Your task to perform on an android device: check data usage Image 0: 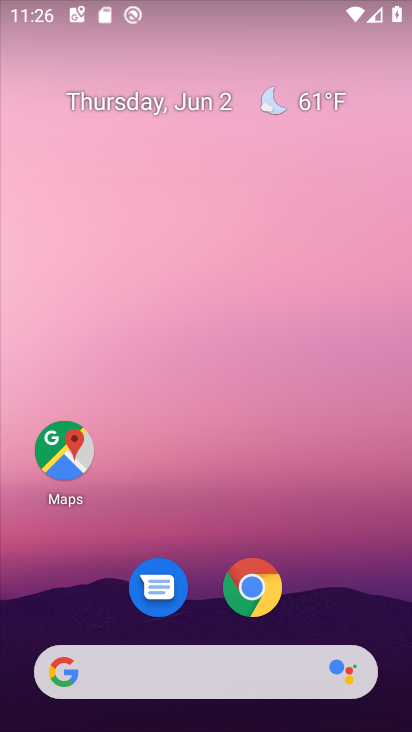
Step 0: drag from (223, 508) to (205, 0)
Your task to perform on an android device: check data usage Image 1: 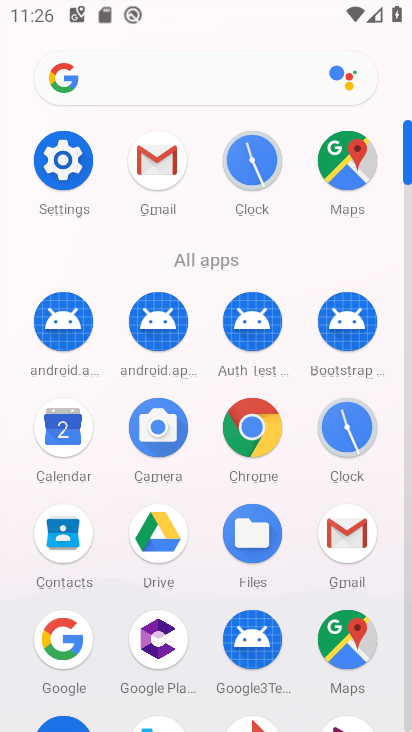
Step 1: click (63, 164)
Your task to perform on an android device: check data usage Image 2: 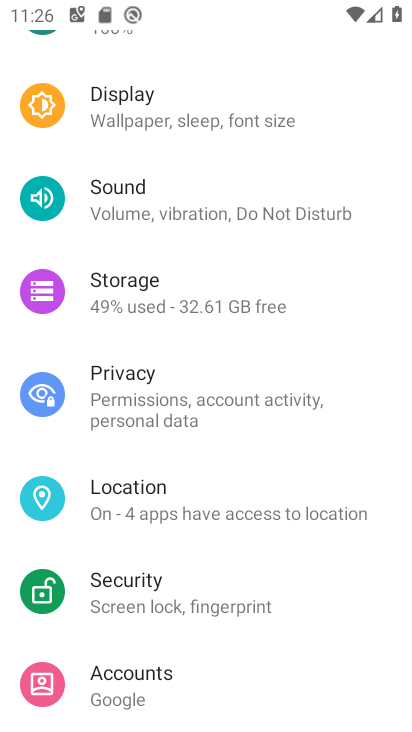
Step 2: drag from (182, 148) to (277, 708)
Your task to perform on an android device: check data usage Image 3: 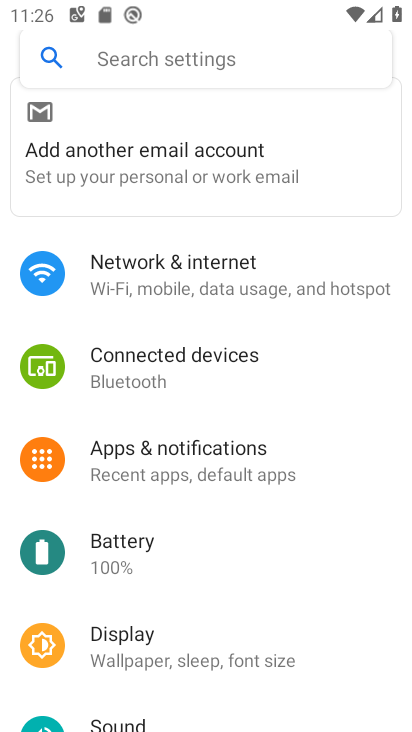
Step 3: click (234, 312)
Your task to perform on an android device: check data usage Image 4: 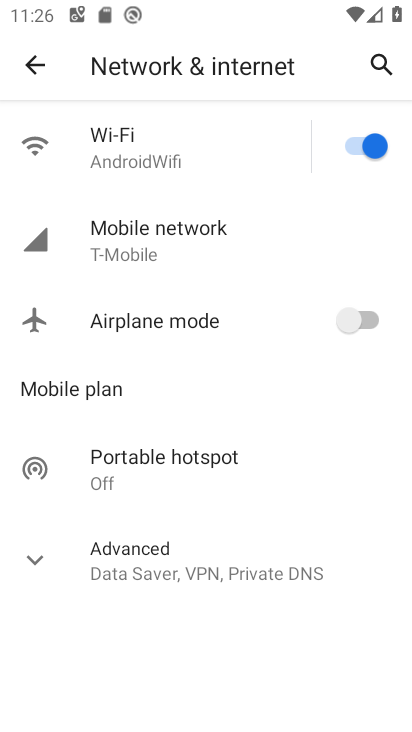
Step 4: click (245, 236)
Your task to perform on an android device: check data usage Image 5: 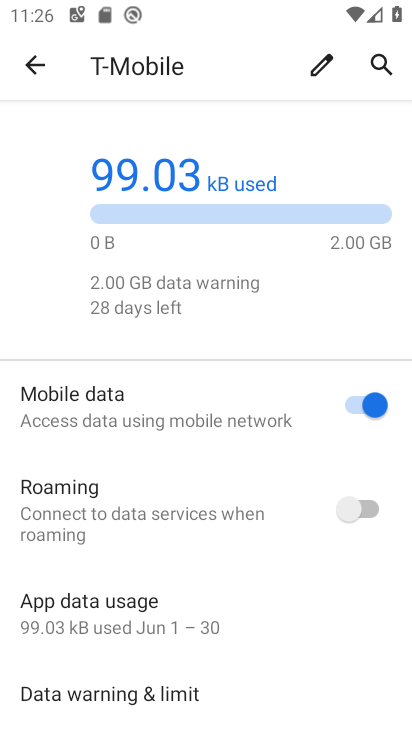
Step 5: task complete